Your task to perform on an android device: open app "Indeed Job Search" Image 0: 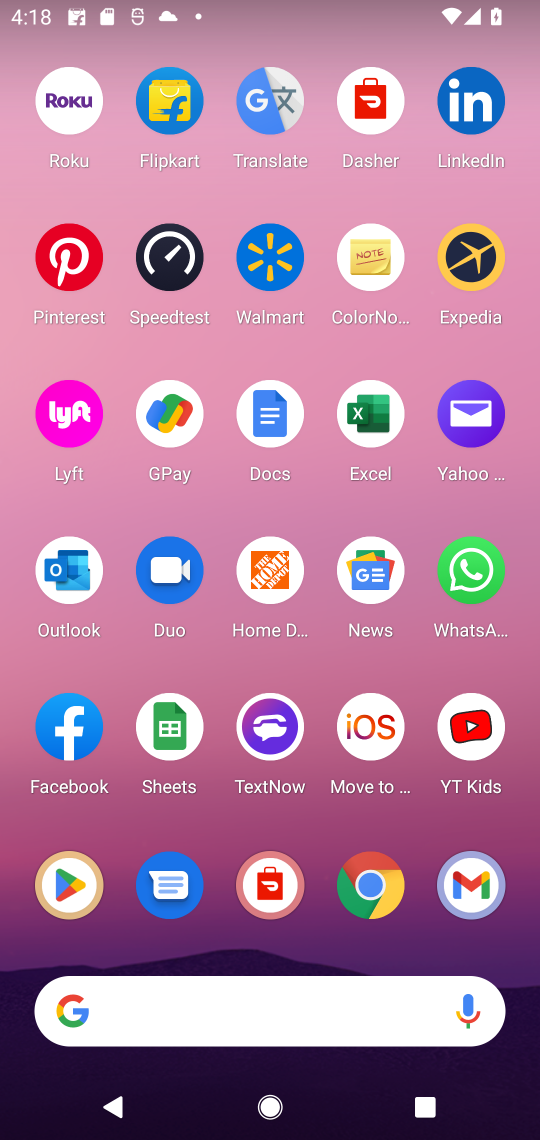
Step 0: click (70, 882)
Your task to perform on an android device: open app "Indeed Job Search" Image 1: 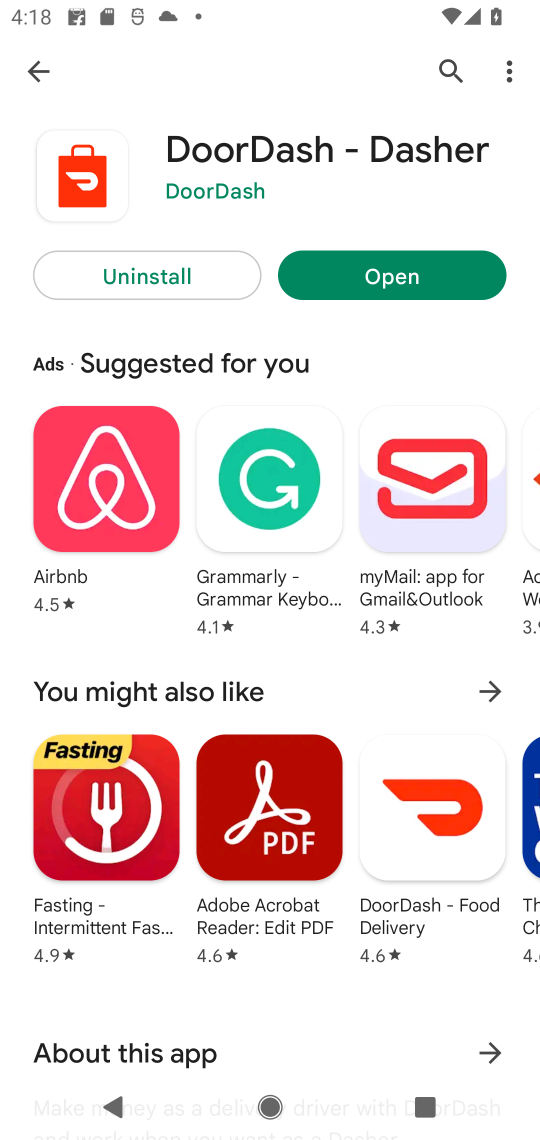
Step 1: click (451, 73)
Your task to perform on an android device: open app "Indeed Job Search" Image 2: 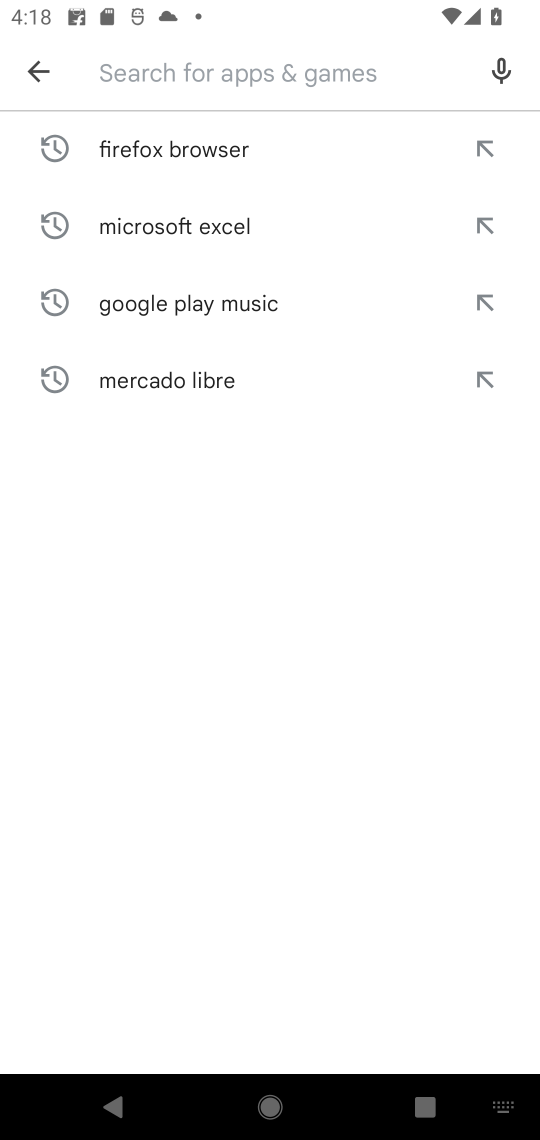
Step 2: click (451, 73)
Your task to perform on an android device: open app "Indeed Job Search" Image 3: 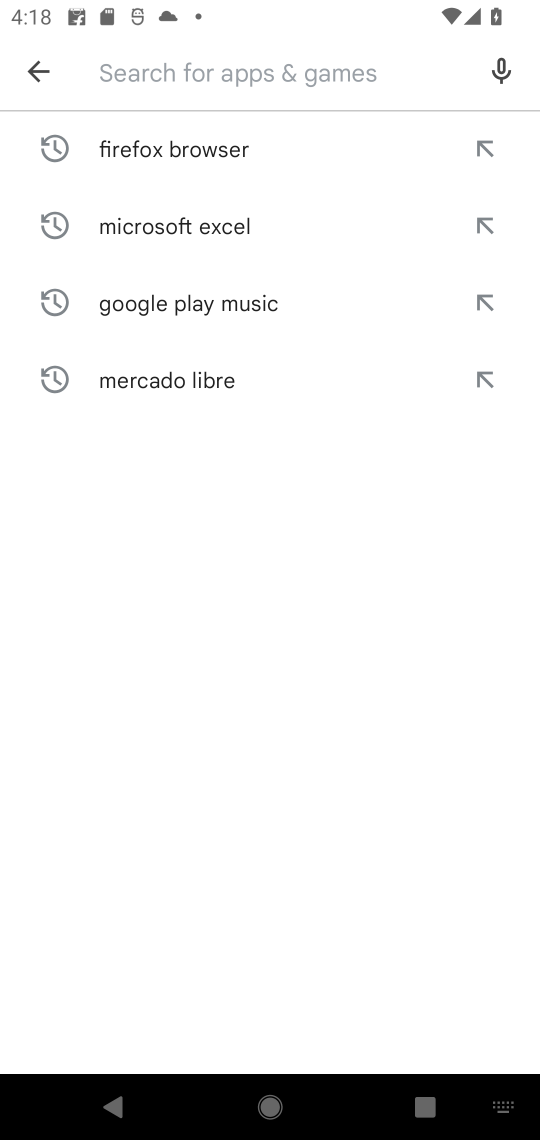
Step 3: type "Indeed Job Search"
Your task to perform on an android device: open app "Indeed Job Search" Image 4: 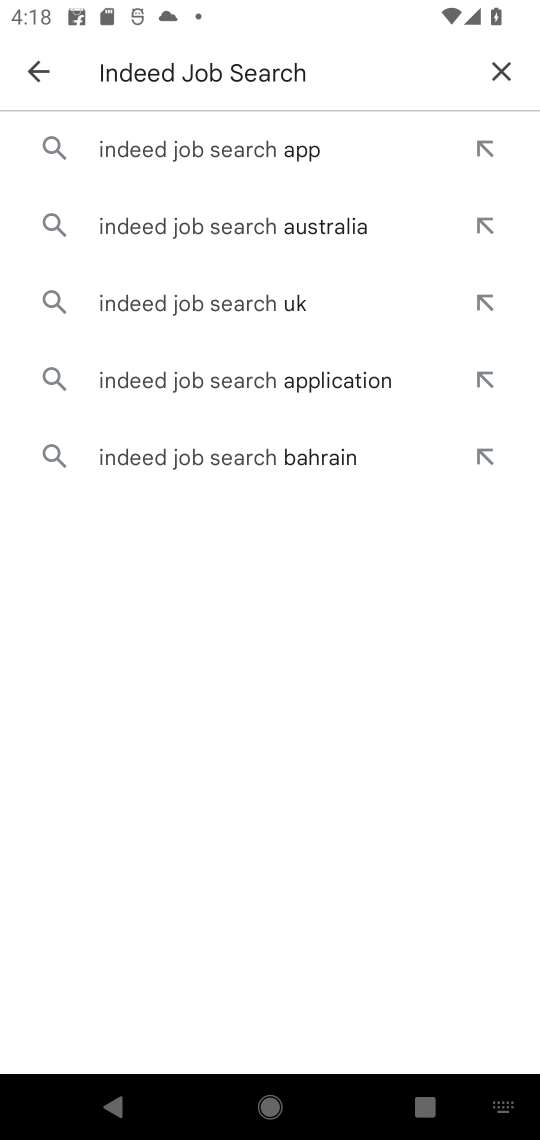
Step 4: click (159, 161)
Your task to perform on an android device: open app "Indeed Job Search" Image 5: 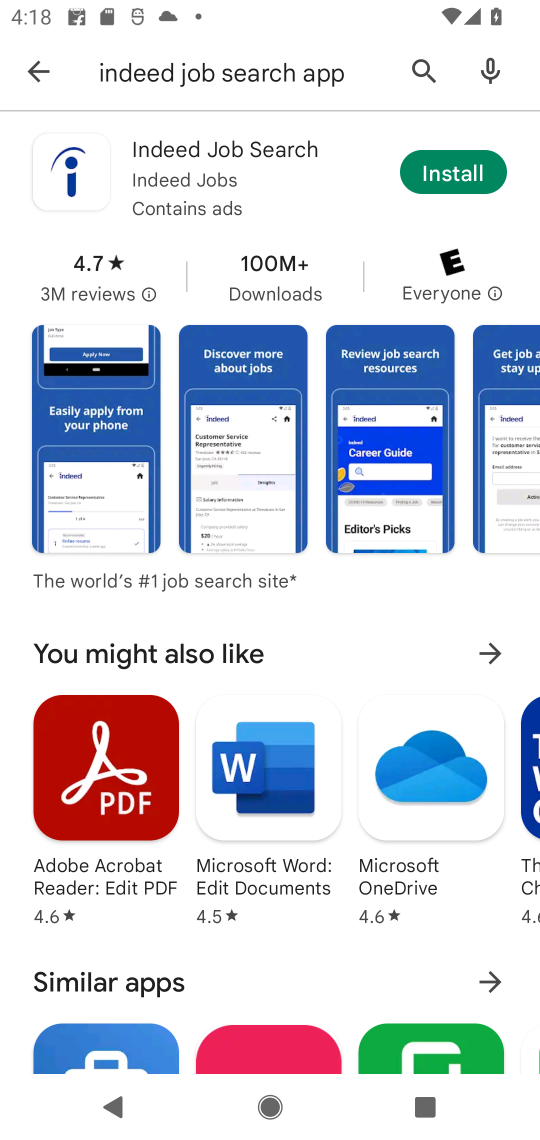
Step 5: click (440, 187)
Your task to perform on an android device: open app "Indeed Job Search" Image 6: 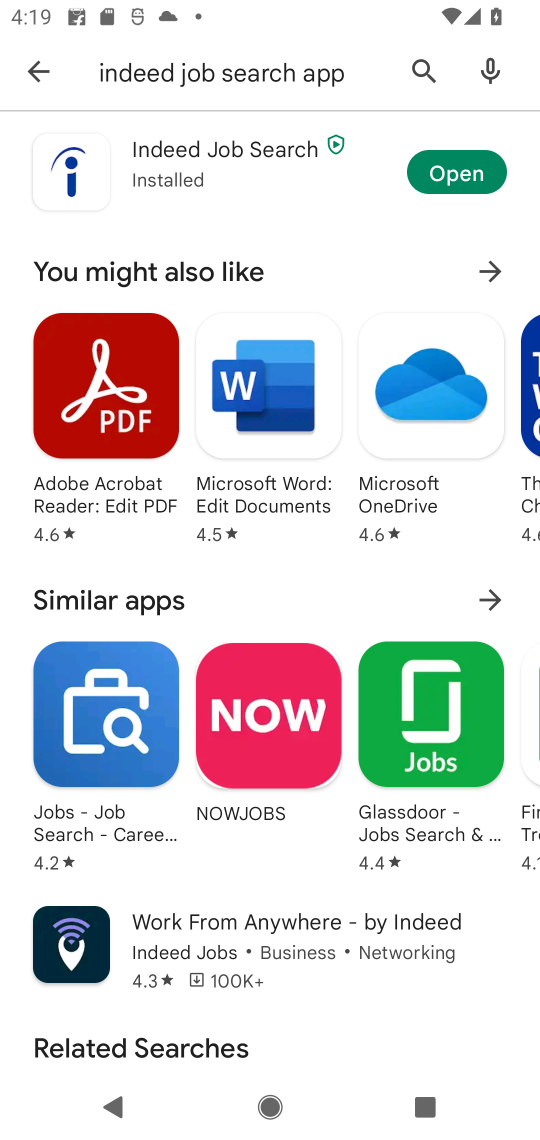
Step 6: click (440, 187)
Your task to perform on an android device: open app "Indeed Job Search" Image 7: 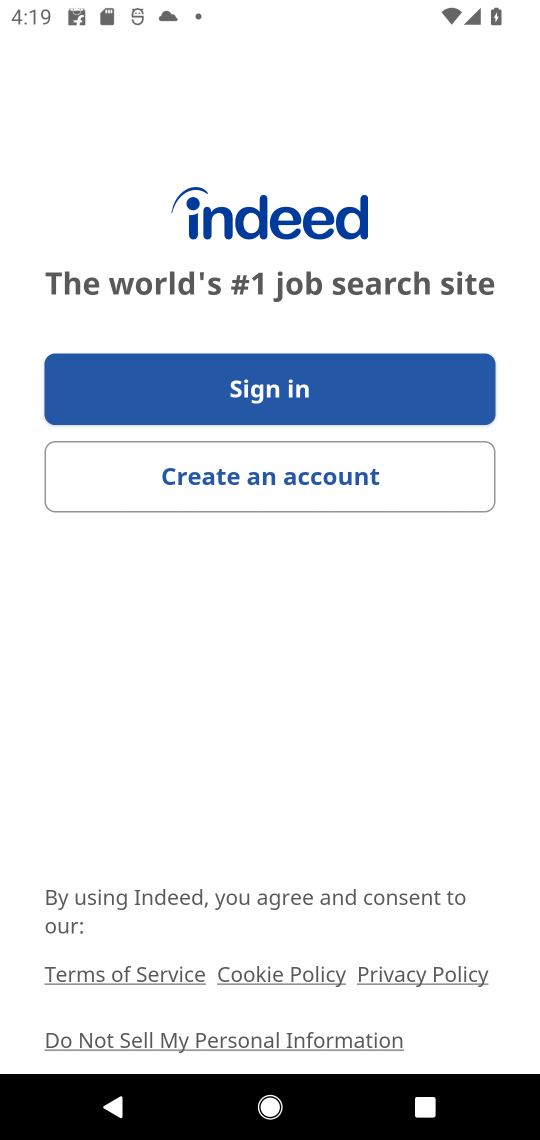
Step 7: task complete